Your task to perform on an android device: visit the assistant section in the google photos Image 0: 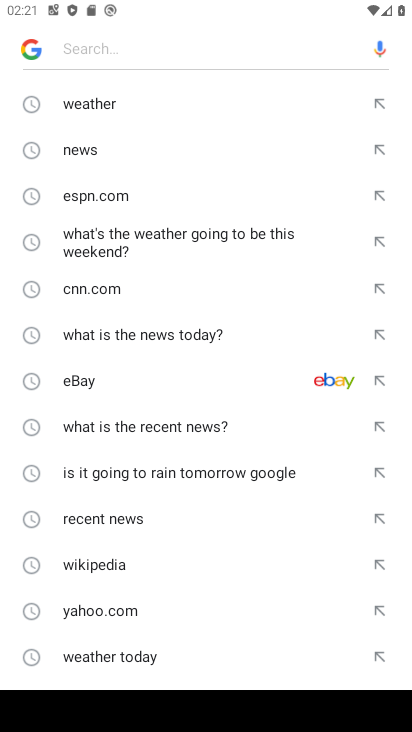
Step 0: press back button
Your task to perform on an android device: visit the assistant section in the google photos Image 1: 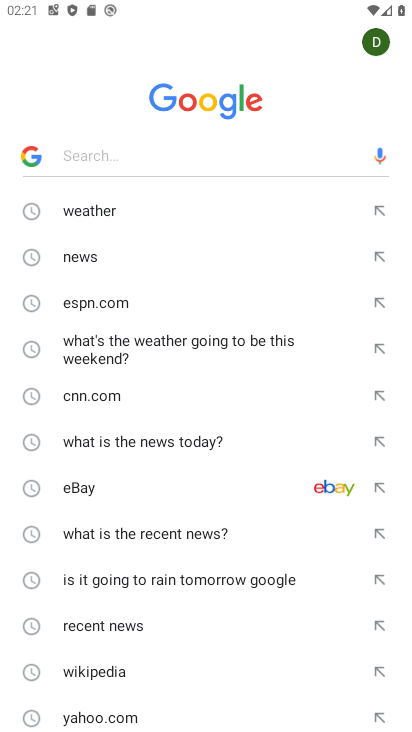
Step 1: press back button
Your task to perform on an android device: visit the assistant section in the google photos Image 2: 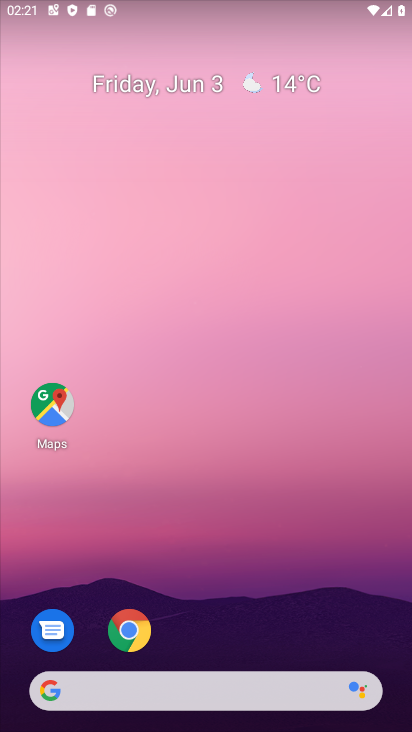
Step 2: drag from (403, 661) to (373, 200)
Your task to perform on an android device: visit the assistant section in the google photos Image 3: 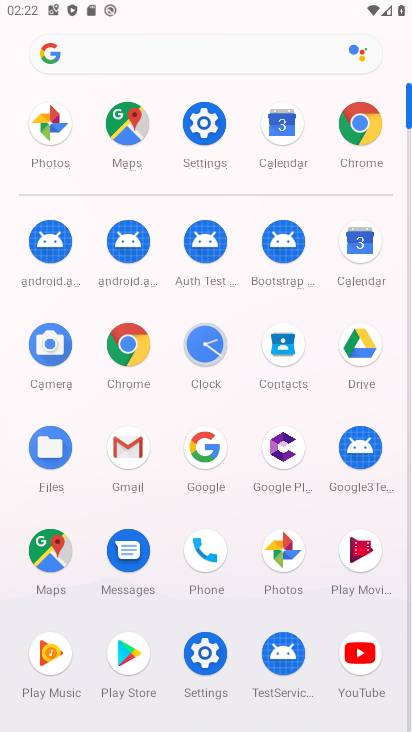
Step 3: click (279, 536)
Your task to perform on an android device: visit the assistant section in the google photos Image 4: 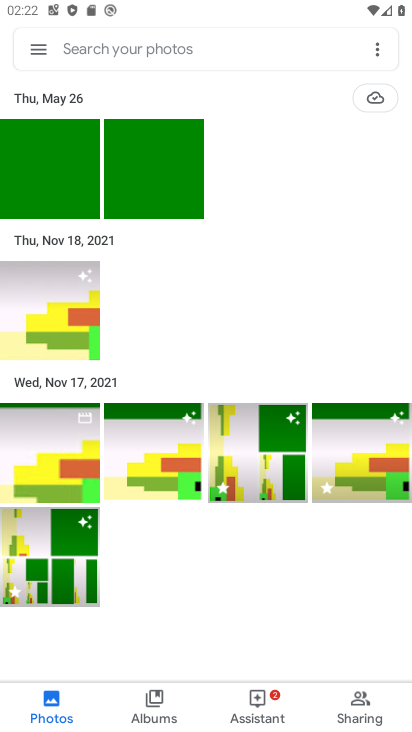
Step 4: click (274, 716)
Your task to perform on an android device: visit the assistant section in the google photos Image 5: 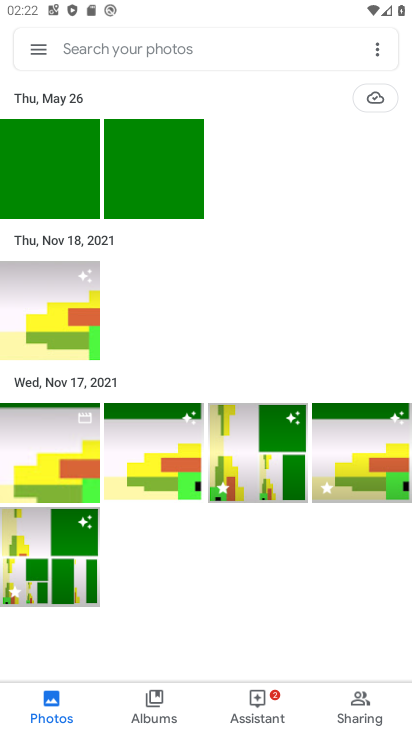
Step 5: click (259, 695)
Your task to perform on an android device: visit the assistant section in the google photos Image 6: 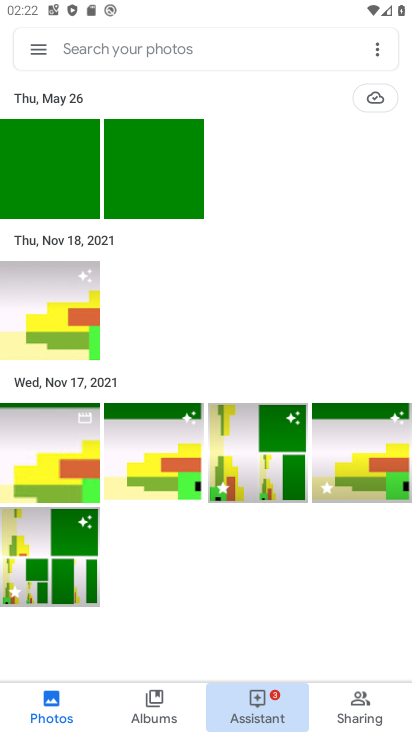
Step 6: click (252, 702)
Your task to perform on an android device: visit the assistant section in the google photos Image 7: 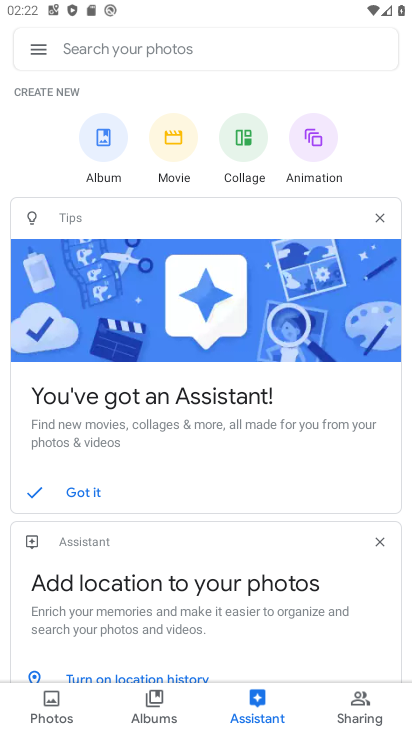
Step 7: task complete